Your task to perform on an android device: Search for Mexican restaurants on Maps Image 0: 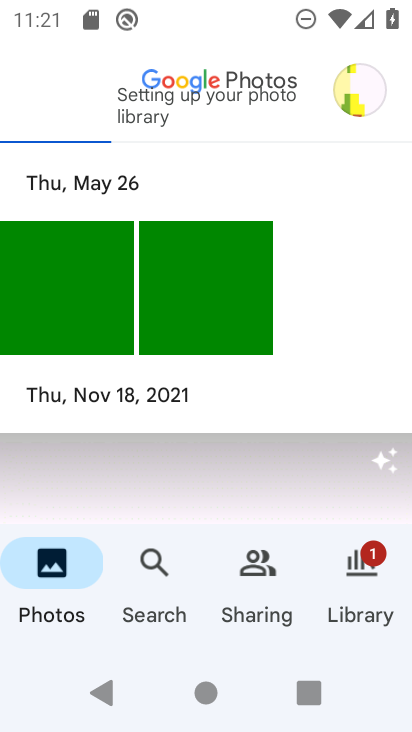
Step 0: press home button
Your task to perform on an android device: Search for Mexican restaurants on Maps Image 1: 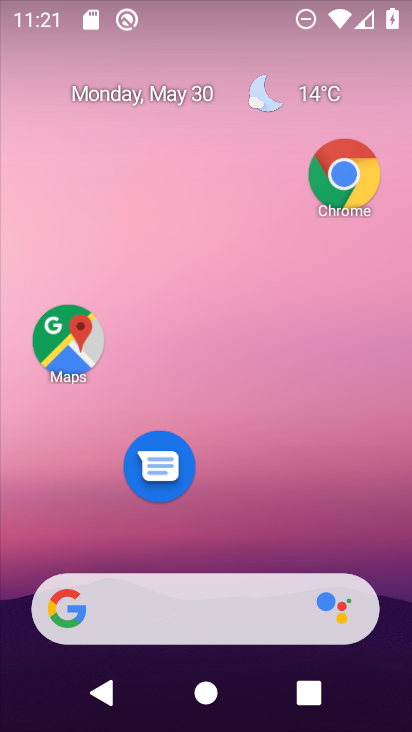
Step 1: click (68, 336)
Your task to perform on an android device: Search for Mexican restaurants on Maps Image 2: 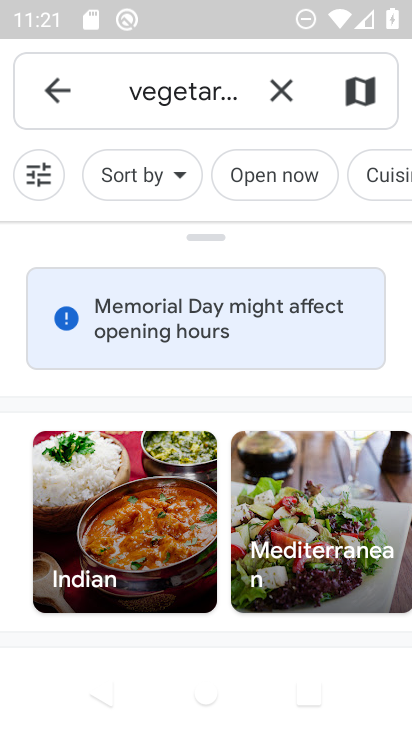
Step 2: click (279, 81)
Your task to perform on an android device: Search for Mexican restaurants on Maps Image 3: 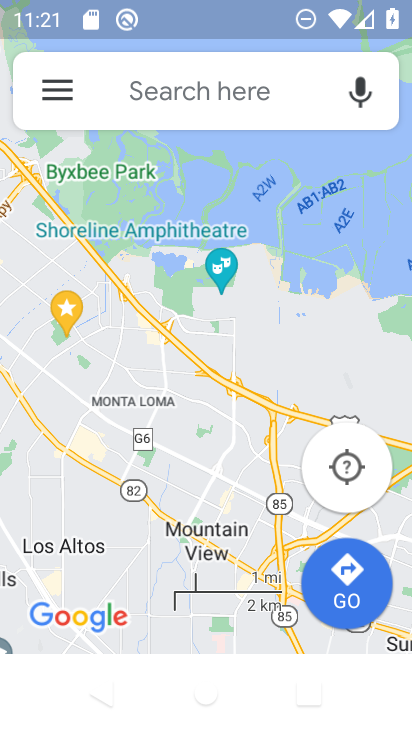
Step 3: click (155, 85)
Your task to perform on an android device: Search for Mexican restaurants on Maps Image 4: 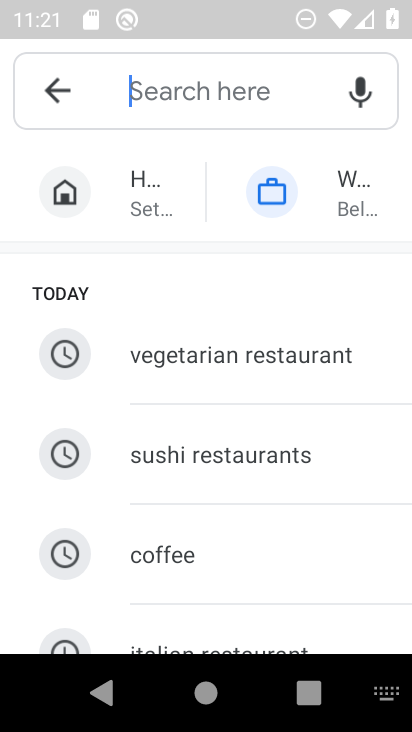
Step 4: drag from (320, 546) to (268, 226)
Your task to perform on an android device: Search for Mexican restaurants on Maps Image 5: 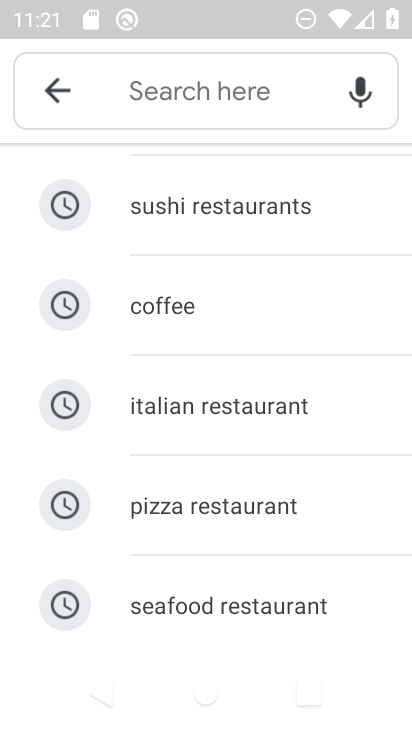
Step 5: drag from (208, 501) to (192, 238)
Your task to perform on an android device: Search for Mexican restaurants on Maps Image 6: 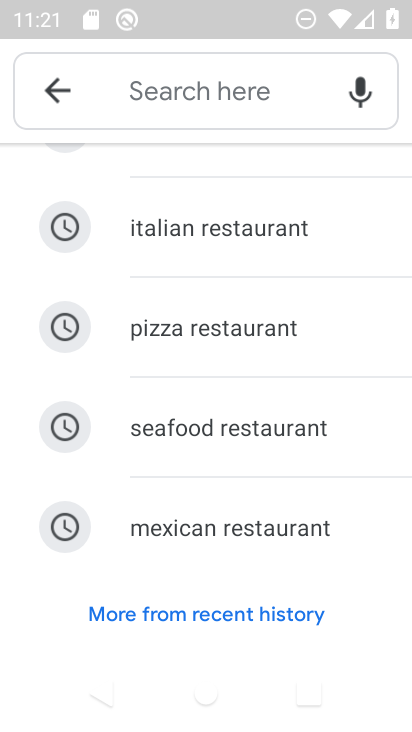
Step 6: click (171, 509)
Your task to perform on an android device: Search for Mexican restaurants on Maps Image 7: 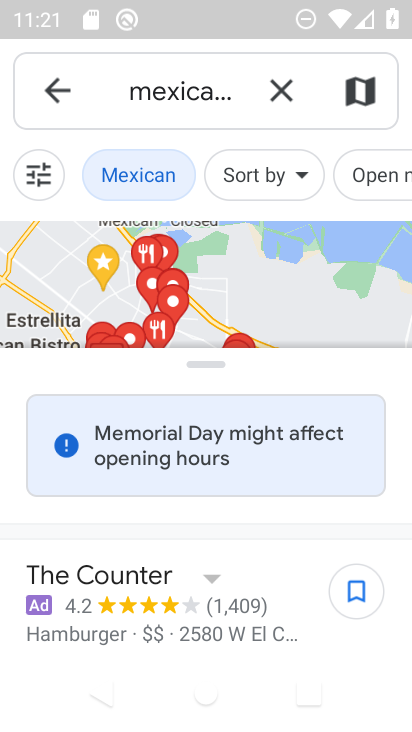
Step 7: task complete